Your task to perform on an android device: add a contact in the contacts app Image 0: 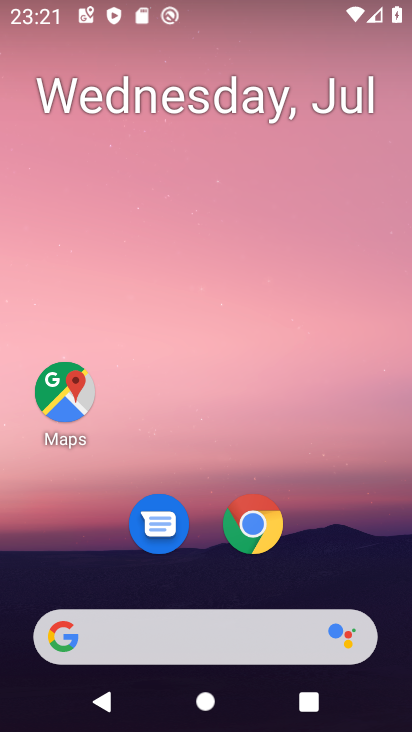
Step 0: drag from (221, 629) to (333, 175)
Your task to perform on an android device: add a contact in the contacts app Image 1: 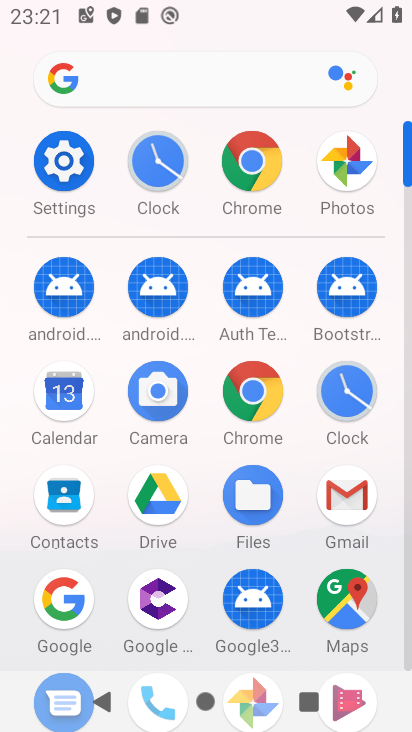
Step 1: click (59, 511)
Your task to perform on an android device: add a contact in the contacts app Image 2: 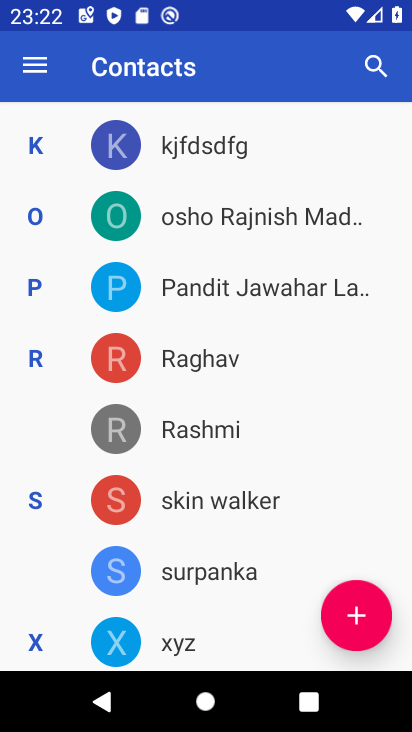
Step 2: click (350, 630)
Your task to perform on an android device: add a contact in the contacts app Image 3: 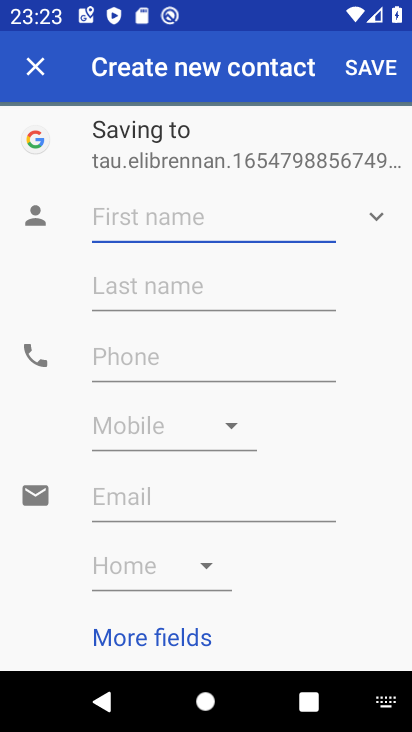
Step 3: type "kuyhhhjj"
Your task to perform on an android device: add a contact in the contacts app Image 4: 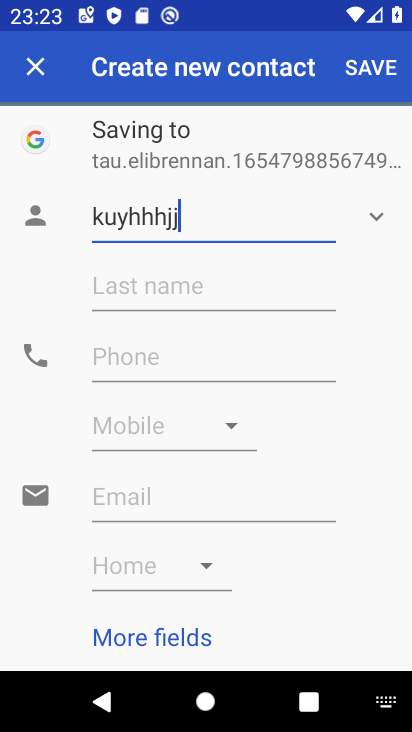
Step 4: click (141, 350)
Your task to perform on an android device: add a contact in the contacts app Image 5: 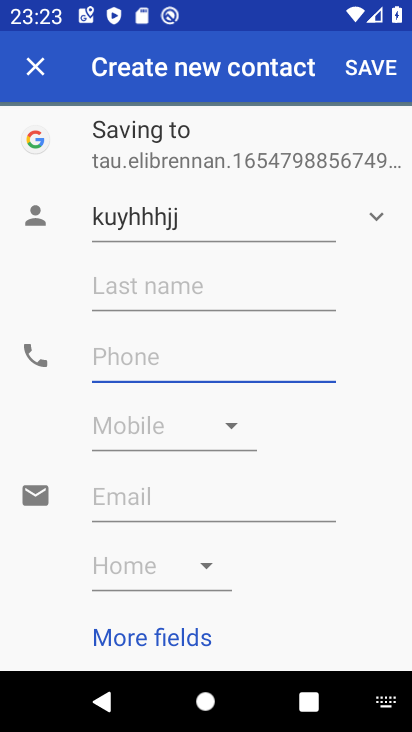
Step 5: type "12324335"
Your task to perform on an android device: add a contact in the contacts app Image 6: 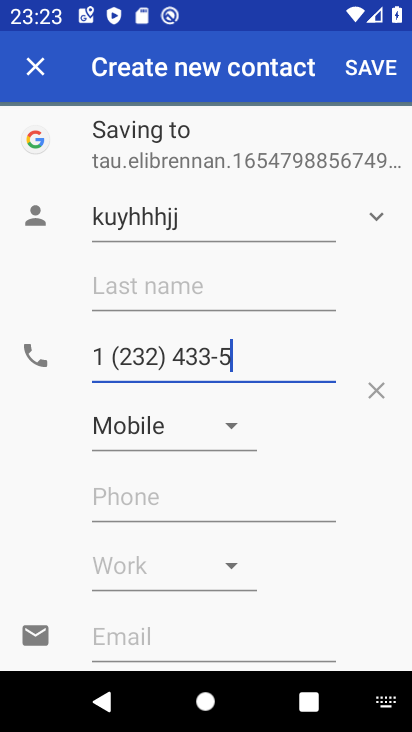
Step 6: click (359, 61)
Your task to perform on an android device: add a contact in the contacts app Image 7: 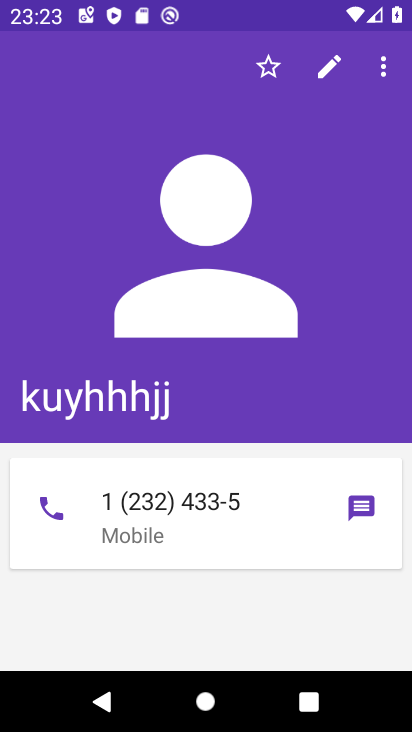
Step 7: task complete